Your task to perform on an android device: Open Google Maps and go to "Timeline" Image 0: 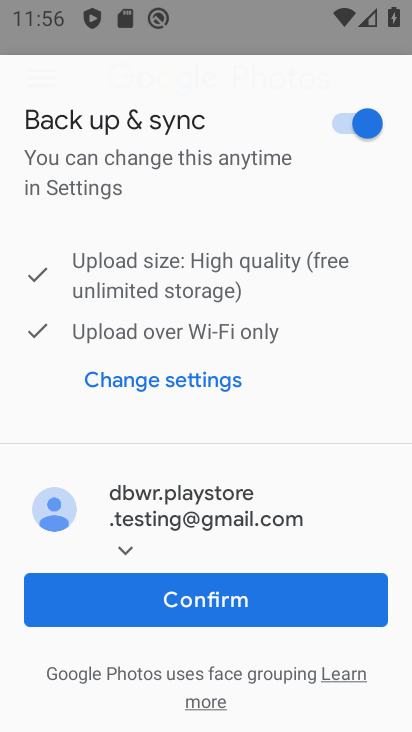
Step 0: press home button
Your task to perform on an android device: Open Google Maps and go to "Timeline" Image 1: 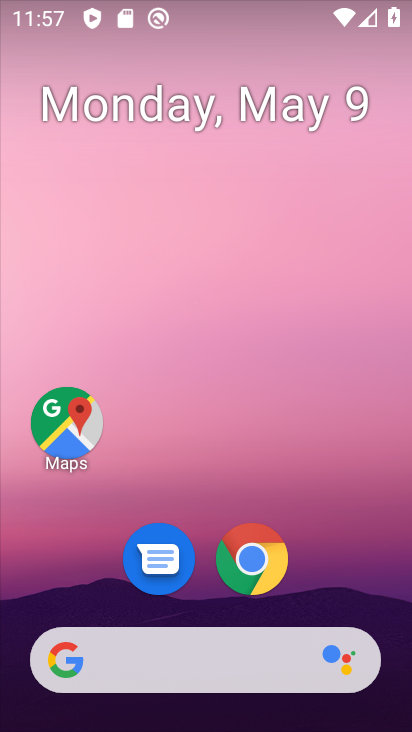
Step 1: drag from (200, 605) to (165, 83)
Your task to perform on an android device: Open Google Maps and go to "Timeline" Image 2: 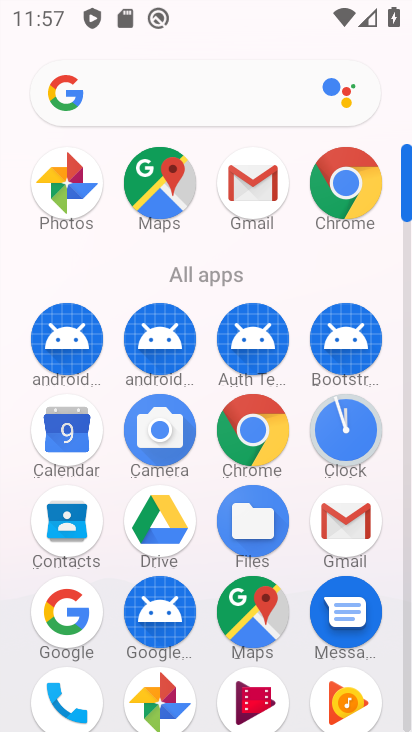
Step 2: click (241, 620)
Your task to perform on an android device: Open Google Maps and go to "Timeline" Image 3: 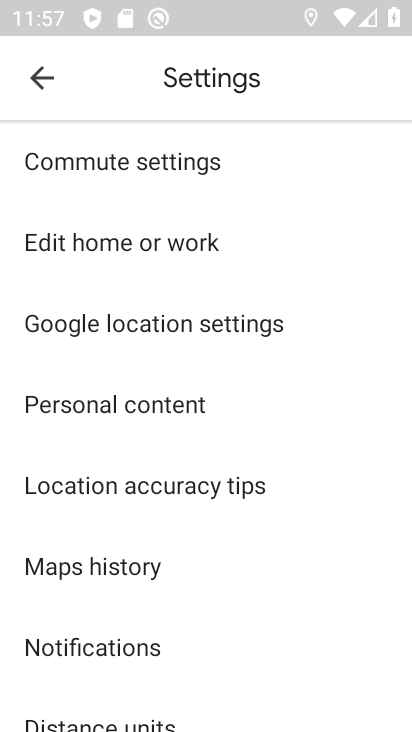
Step 3: click (41, 89)
Your task to perform on an android device: Open Google Maps and go to "Timeline" Image 4: 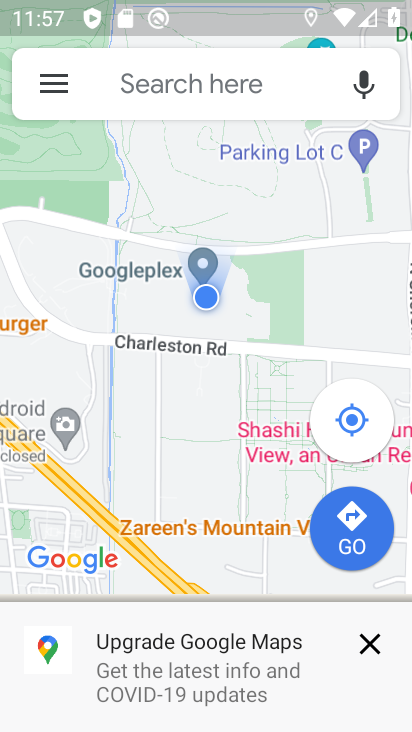
Step 4: click (41, 85)
Your task to perform on an android device: Open Google Maps and go to "Timeline" Image 5: 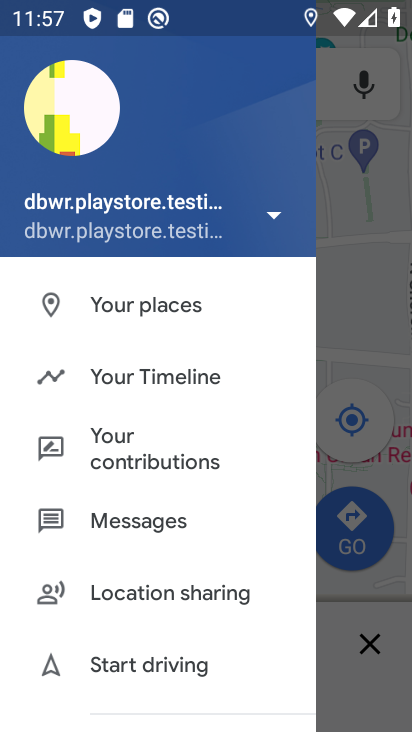
Step 5: click (128, 372)
Your task to perform on an android device: Open Google Maps and go to "Timeline" Image 6: 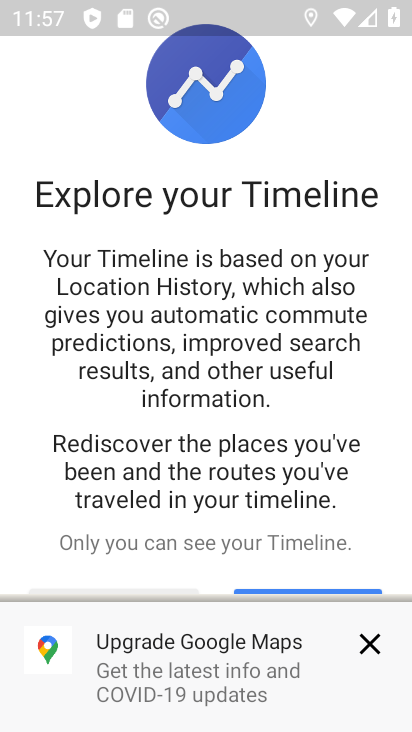
Step 6: task complete